Your task to perform on an android device: turn on notifications settings in the gmail app Image 0: 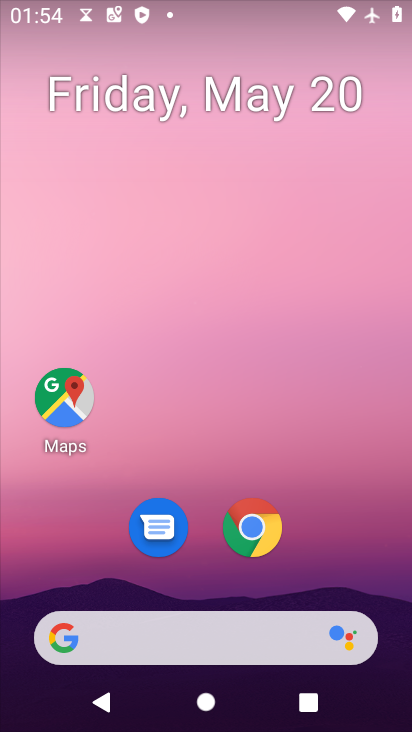
Step 0: press home button
Your task to perform on an android device: turn on notifications settings in the gmail app Image 1: 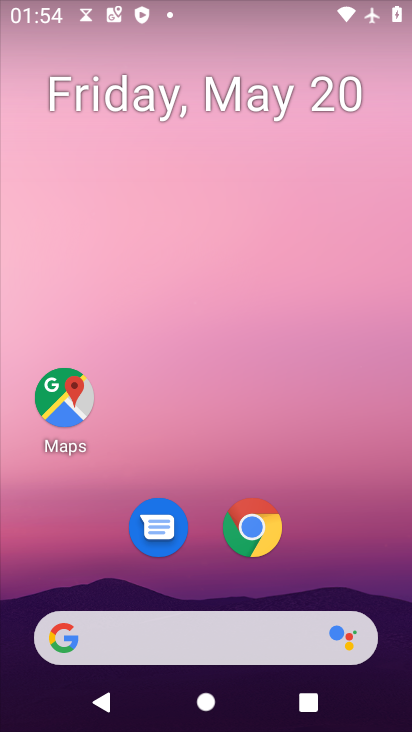
Step 1: drag from (146, 635) to (223, 251)
Your task to perform on an android device: turn on notifications settings in the gmail app Image 2: 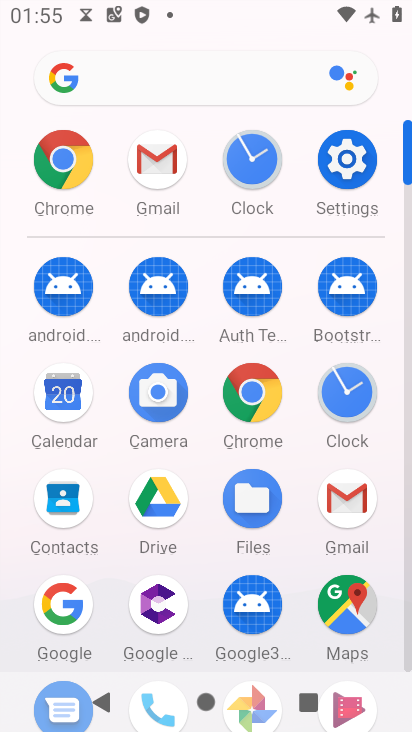
Step 2: click (168, 167)
Your task to perform on an android device: turn on notifications settings in the gmail app Image 3: 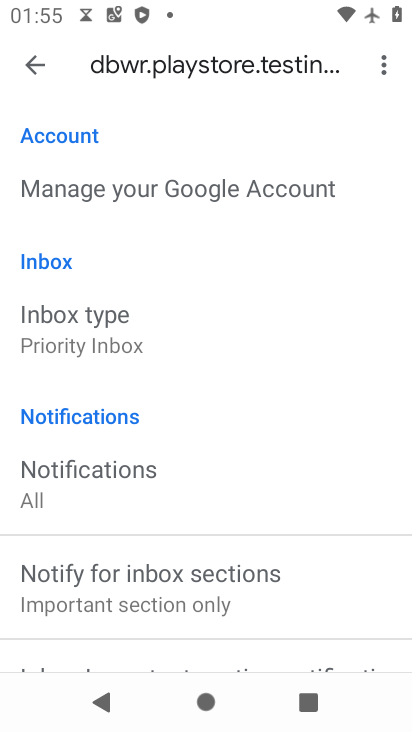
Step 3: click (80, 485)
Your task to perform on an android device: turn on notifications settings in the gmail app Image 4: 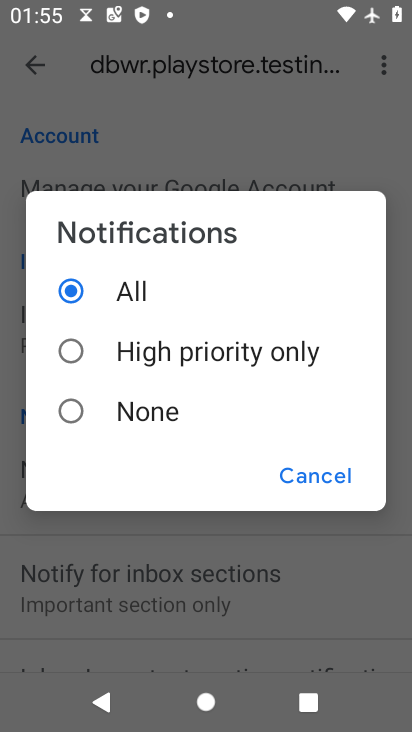
Step 4: task complete